Your task to perform on an android device: Go to sound settings Image 0: 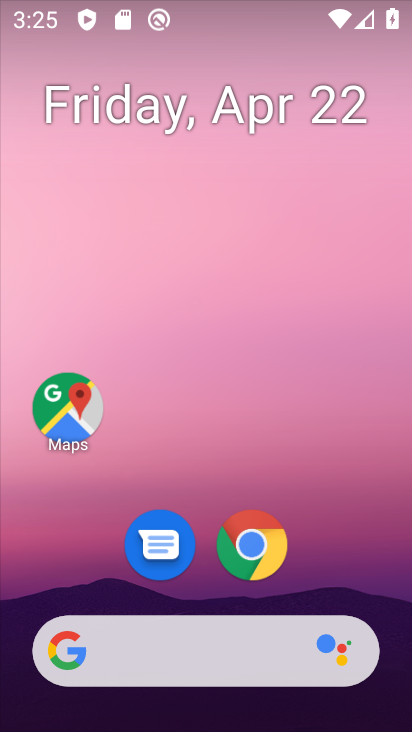
Step 0: drag from (397, 622) to (294, 80)
Your task to perform on an android device: Go to sound settings Image 1: 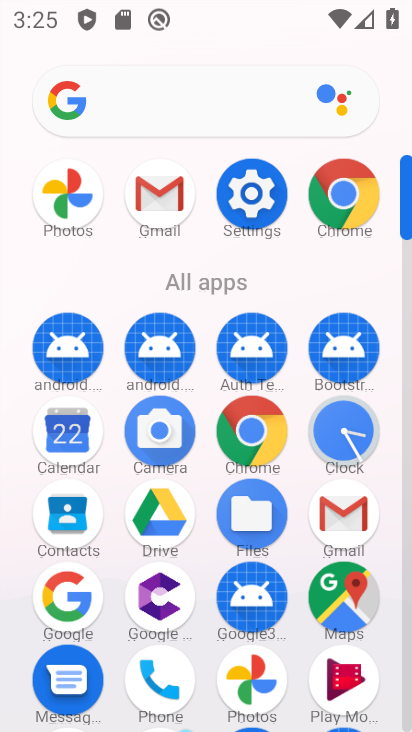
Step 1: click (406, 696)
Your task to perform on an android device: Go to sound settings Image 2: 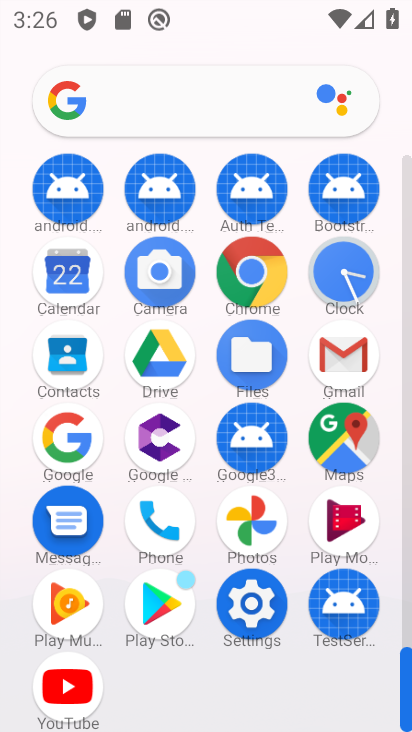
Step 2: click (249, 602)
Your task to perform on an android device: Go to sound settings Image 3: 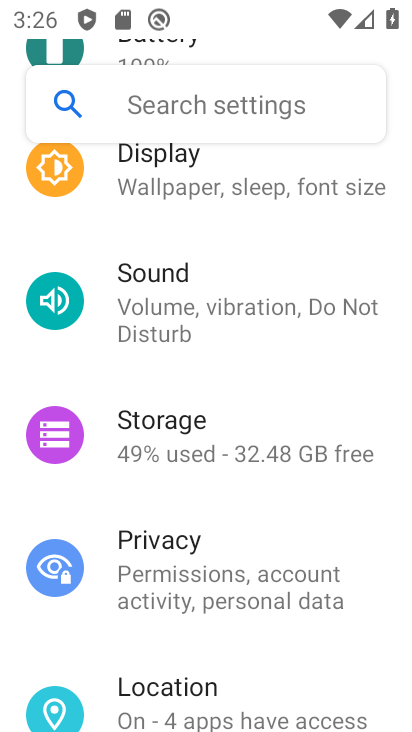
Step 3: click (170, 290)
Your task to perform on an android device: Go to sound settings Image 4: 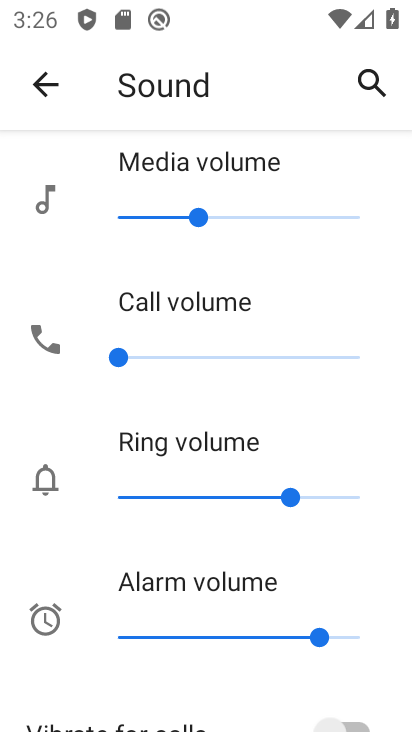
Step 4: drag from (370, 566) to (356, 315)
Your task to perform on an android device: Go to sound settings Image 5: 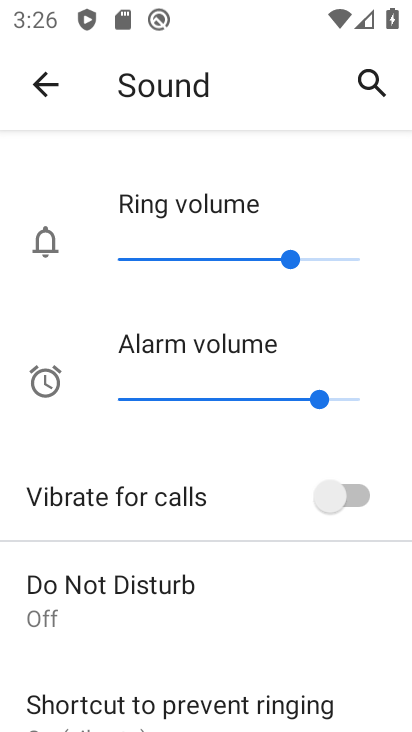
Step 5: drag from (321, 599) to (325, 370)
Your task to perform on an android device: Go to sound settings Image 6: 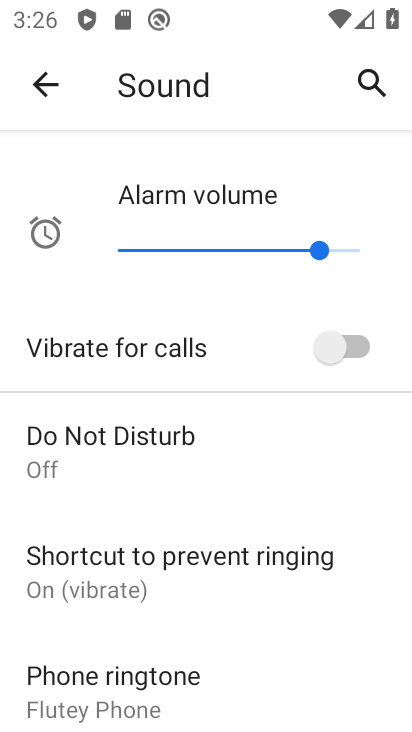
Step 6: drag from (314, 582) to (313, 366)
Your task to perform on an android device: Go to sound settings Image 7: 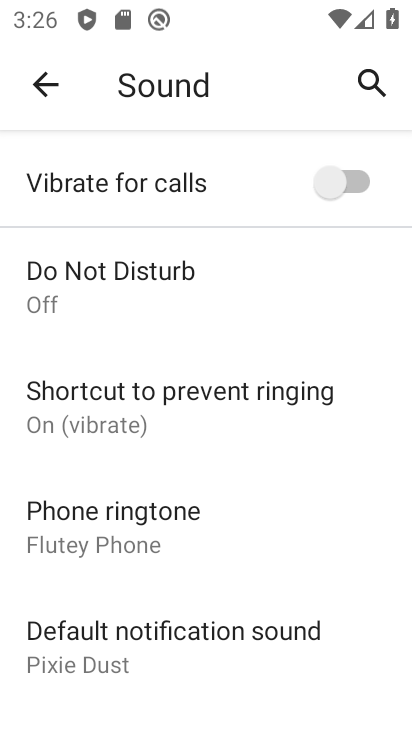
Step 7: drag from (310, 551) to (299, 317)
Your task to perform on an android device: Go to sound settings Image 8: 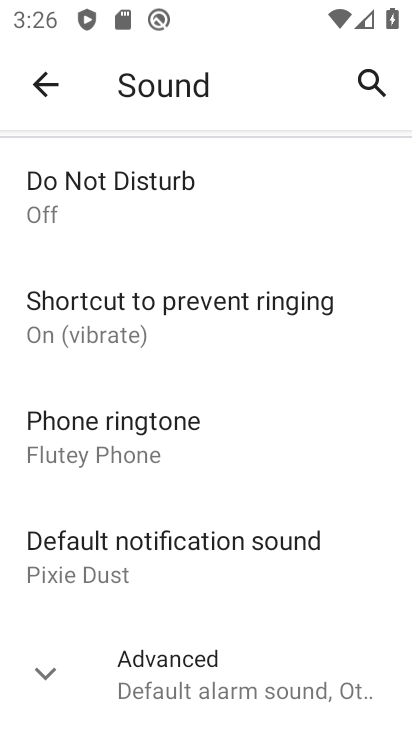
Step 8: drag from (283, 585) to (275, 346)
Your task to perform on an android device: Go to sound settings Image 9: 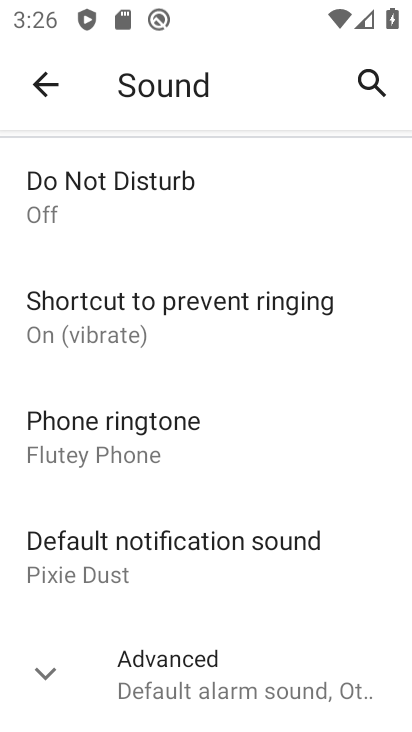
Step 9: click (49, 675)
Your task to perform on an android device: Go to sound settings Image 10: 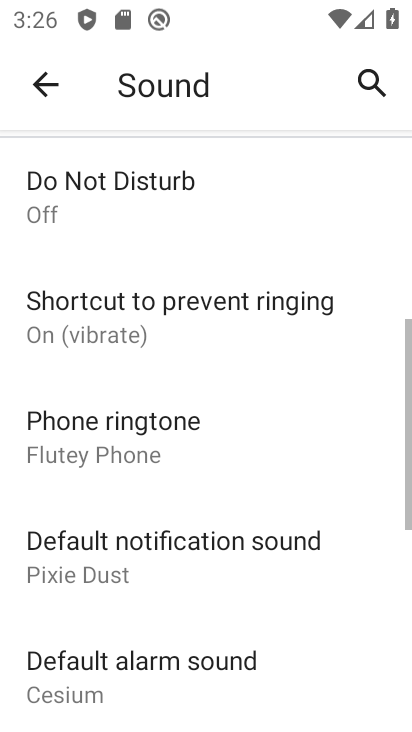
Step 10: task complete